Your task to perform on an android device: check out phone information Image 0: 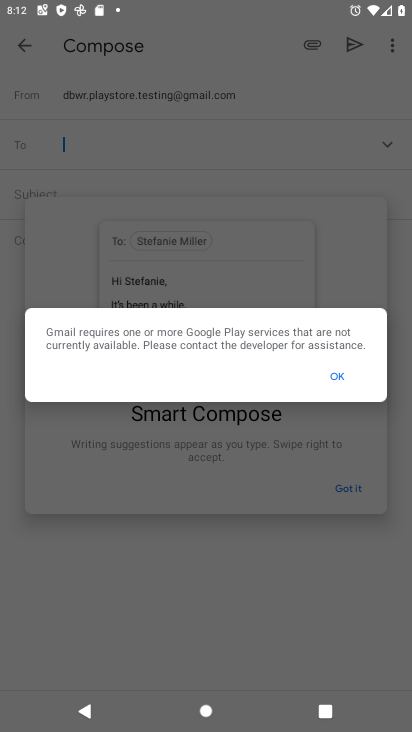
Step 0: press home button
Your task to perform on an android device: check out phone information Image 1: 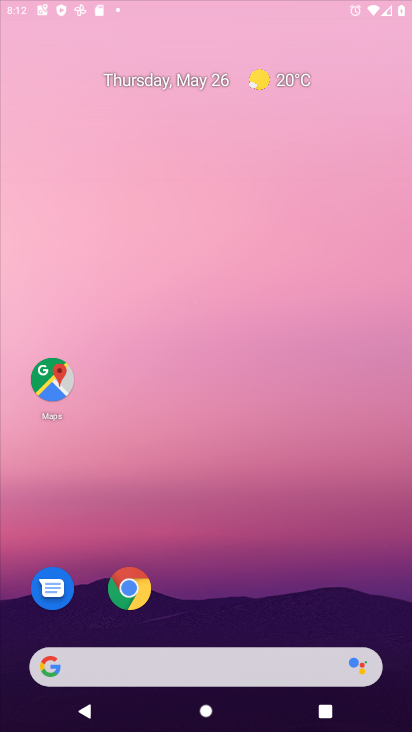
Step 1: drag from (387, 660) to (234, 56)
Your task to perform on an android device: check out phone information Image 2: 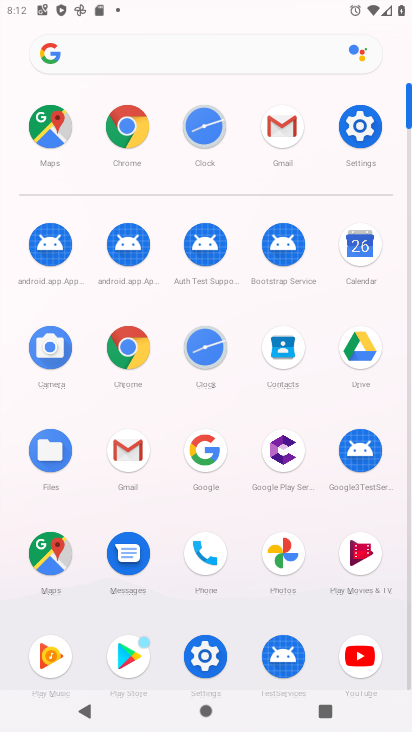
Step 2: click (200, 659)
Your task to perform on an android device: check out phone information Image 3: 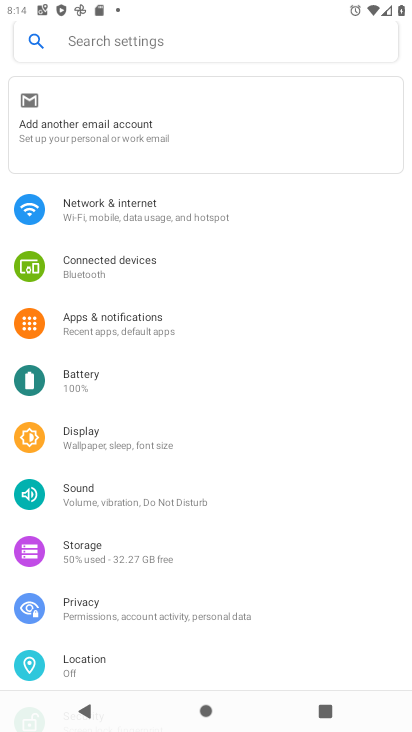
Step 3: task complete